Your task to perform on an android device: Open battery settings Image 0: 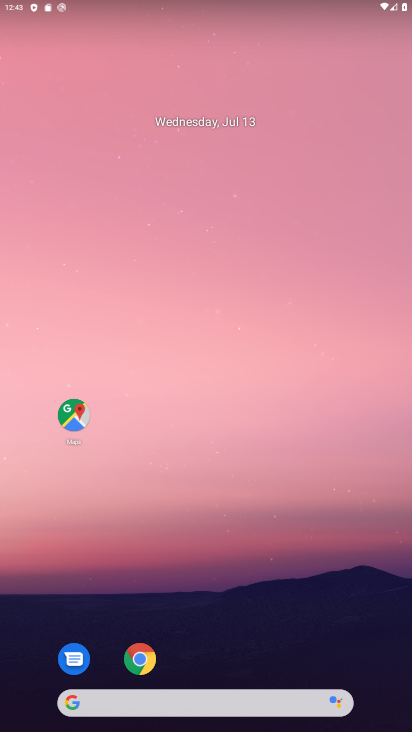
Step 0: drag from (290, 680) to (224, 107)
Your task to perform on an android device: Open battery settings Image 1: 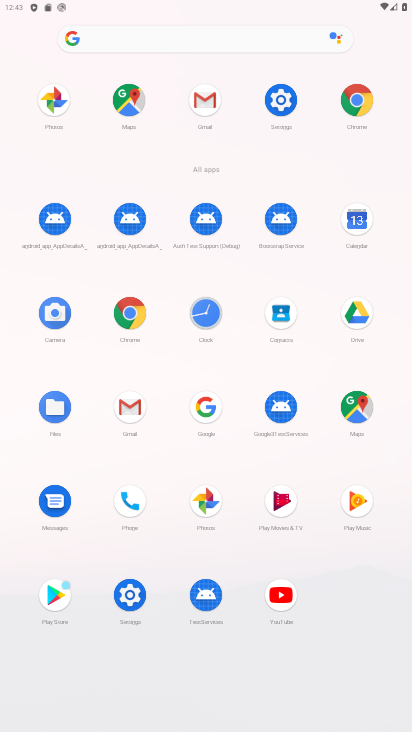
Step 1: click (289, 100)
Your task to perform on an android device: Open battery settings Image 2: 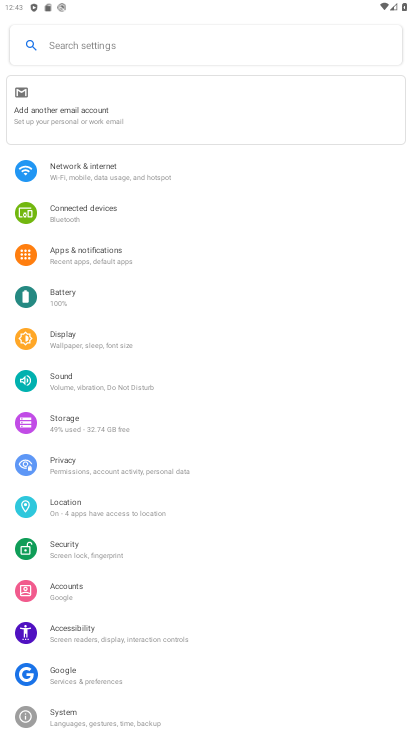
Step 2: click (63, 295)
Your task to perform on an android device: Open battery settings Image 3: 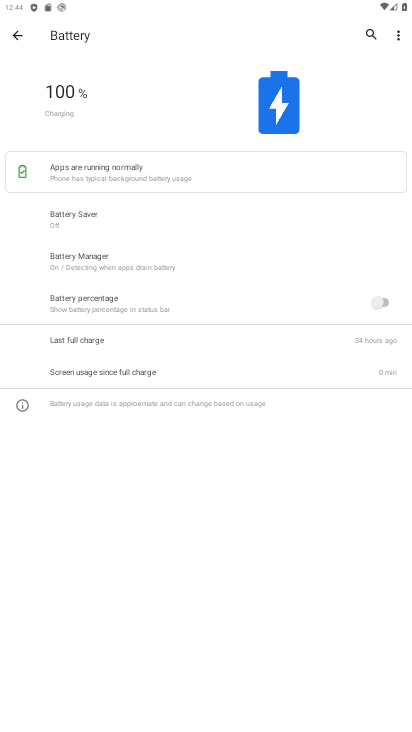
Step 3: task complete